Your task to perform on an android device: Go to Android settings Image 0: 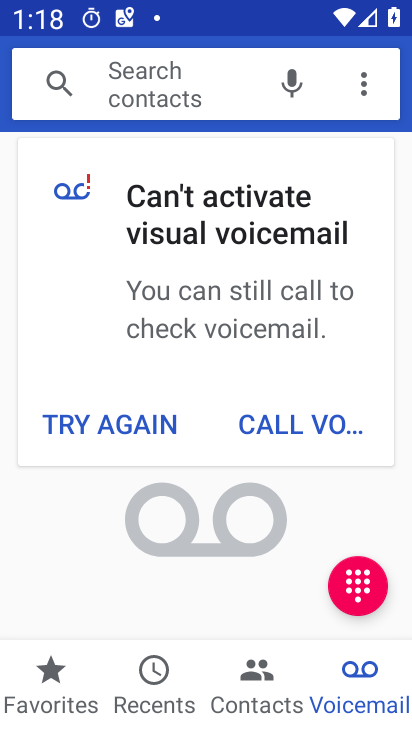
Step 0: press home button
Your task to perform on an android device: Go to Android settings Image 1: 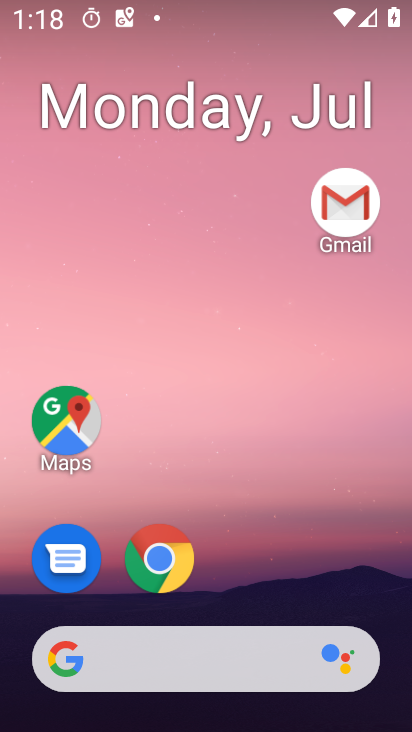
Step 1: drag from (371, 592) to (368, 100)
Your task to perform on an android device: Go to Android settings Image 2: 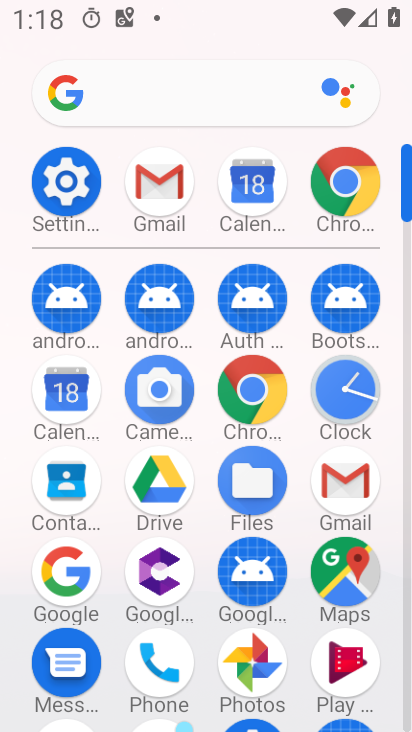
Step 2: click (73, 192)
Your task to perform on an android device: Go to Android settings Image 3: 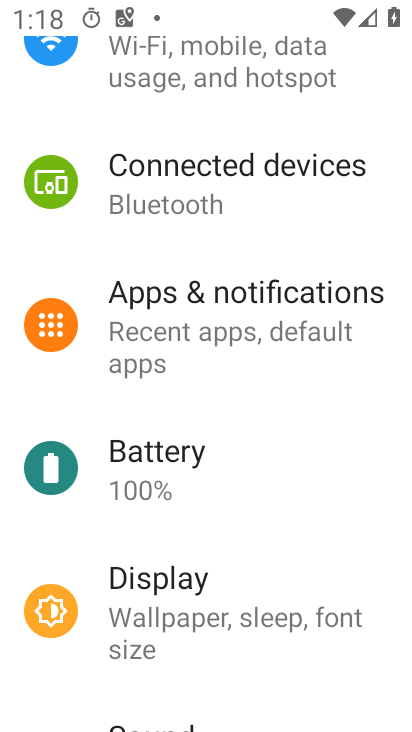
Step 3: drag from (378, 511) to (372, 434)
Your task to perform on an android device: Go to Android settings Image 4: 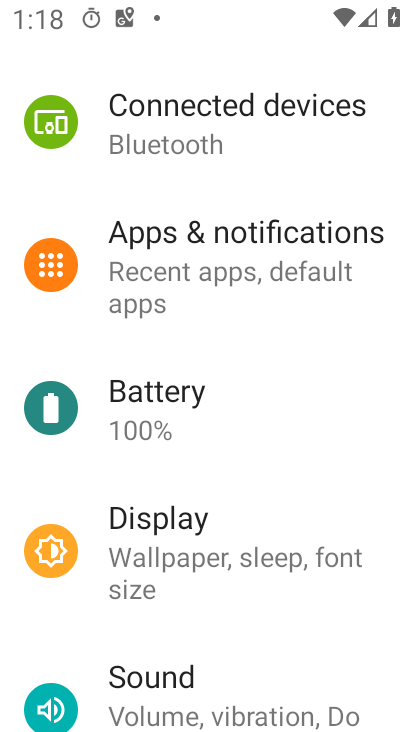
Step 4: drag from (369, 590) to (381, 505)
Your task to perform on an android device: Go to Android settings Image 5: 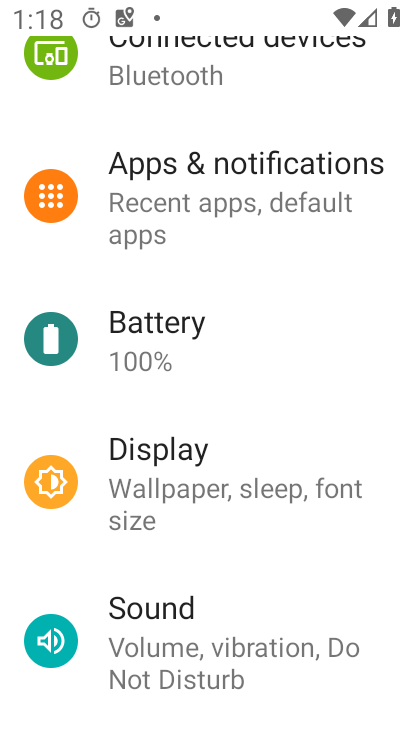
Step 5: drag from (365, 599) to (370, 434)
Your task to perform on an android device: Go to Android settings Image 6: 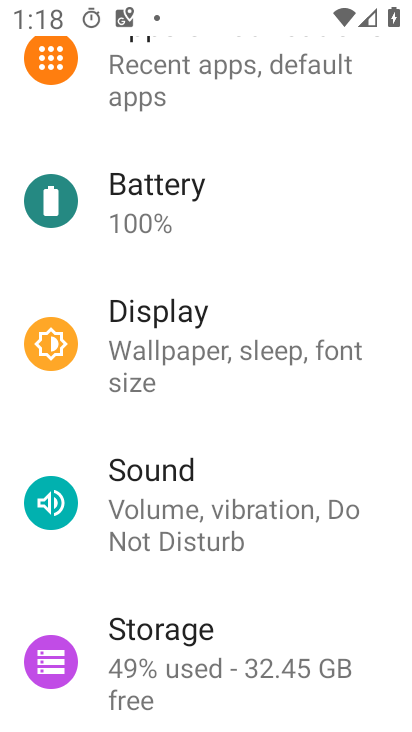
Step 6: drag from (357, 513) to (364, 405)
Your task to perform on an android device: Go to Android settings Image 7: 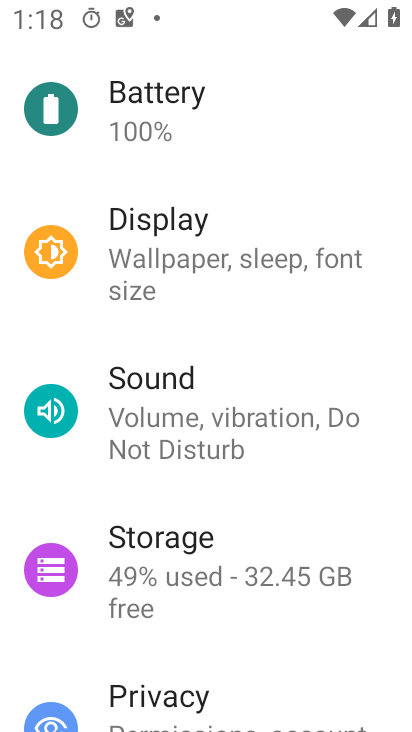
Step 7: drag from (340, 640) to (333, 565)
Your task to perform on an android device: Go to Android settings Image 8: 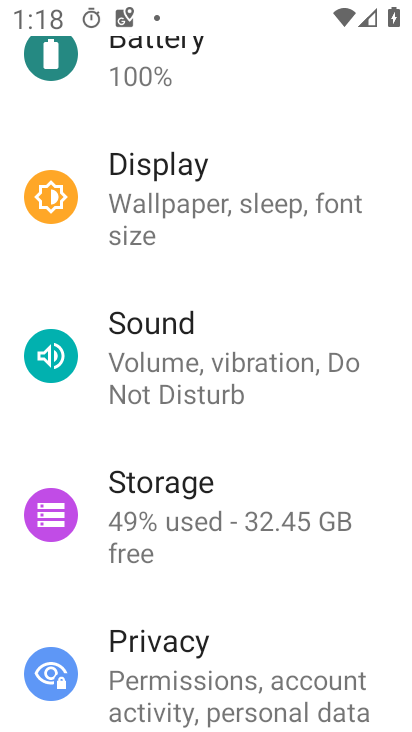
Step 8: drag from (306, 617) to (315, 465)
Your task to perform on an android device: Go to Android settings Image 9: 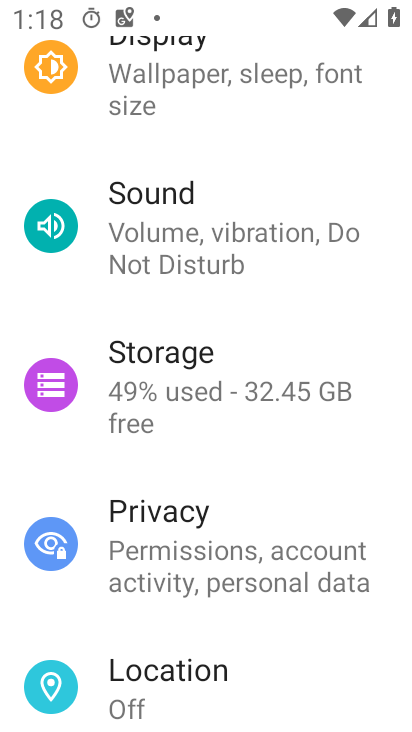
Step 9: drag from (328, 593) to (331, 432)
Your task to perform on an android device: Go to Android settings Image 10: 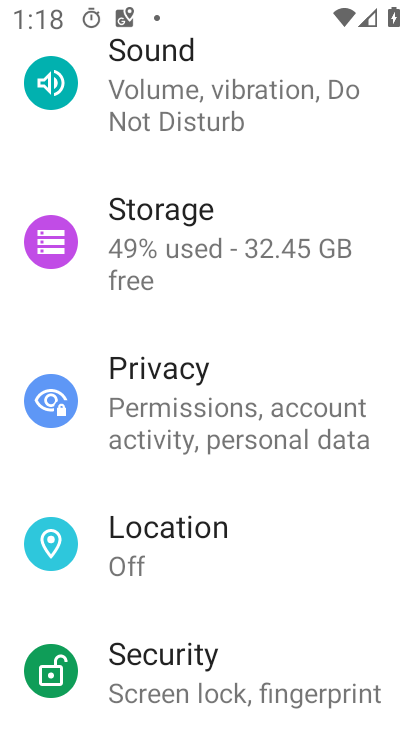
Step 10: drag from (326, 587) to (328, 504)
Your task to perform on an android device: Go to Android settings Image 11: 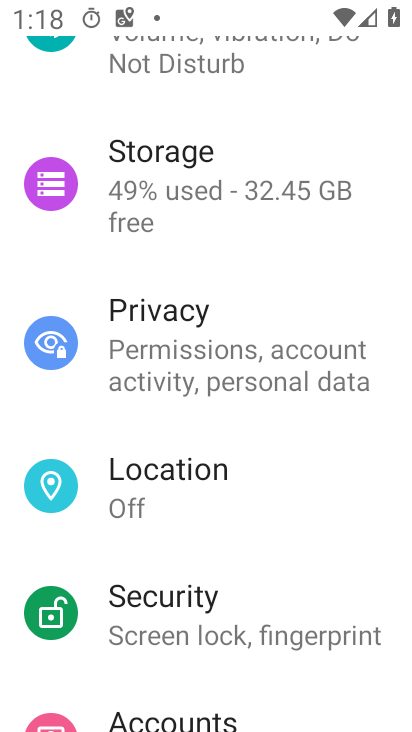
Step 11: drag from (329, 668) to (339, 537)
Your task to perform on an android device: Go to Android settings Image 12: 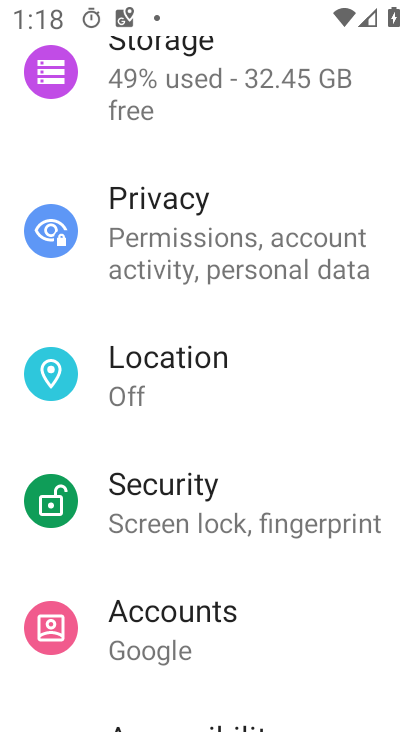
Step 12: drag from (332, 625) to (332, 497)
Your task to perform on an android device: Go to Android settings Image 13: 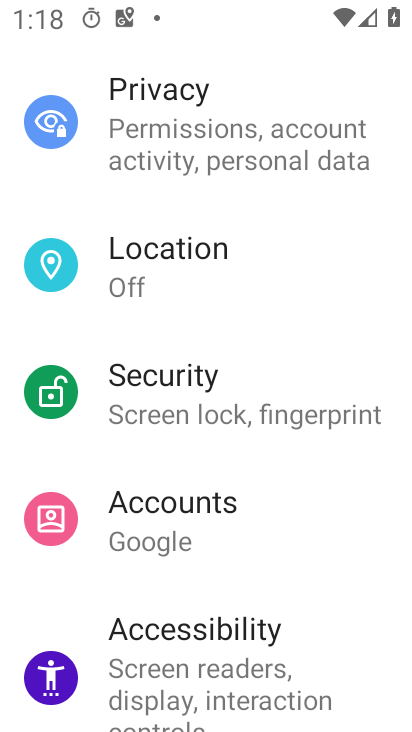
Step 13: drag from (332, 609) to (339, 458)
Your task to perform on an android device: Go to Android settings Image 14: 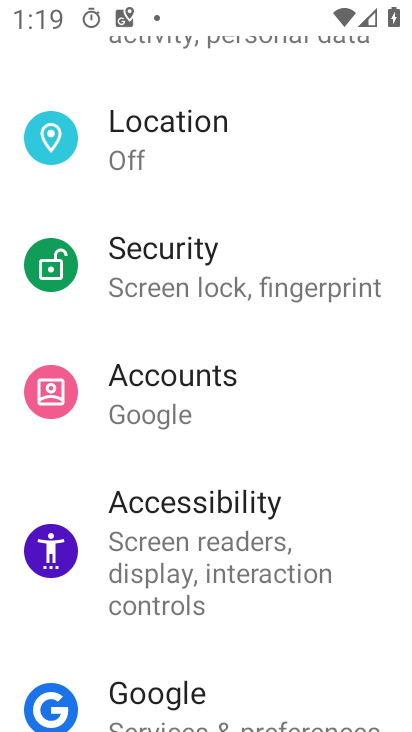
Step 14: drag from (354, 618) to (357, 452)
Your task to perform on an android device: Go to Android settings Image 15: 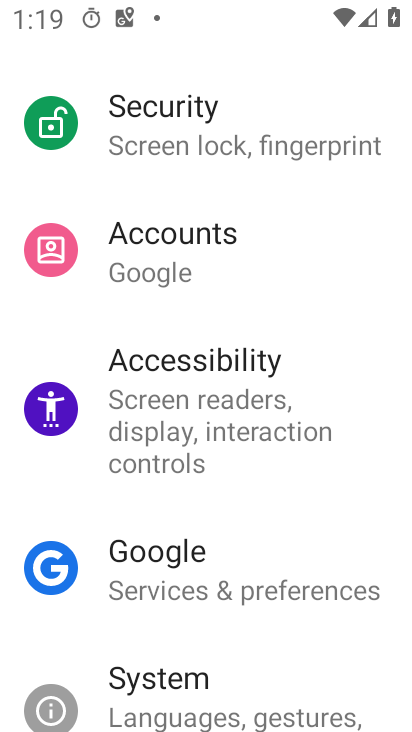
Step 15: drag from (323, 625) to (326, 486)
Your task to perform on an android device: Go to Android settings Image 16: 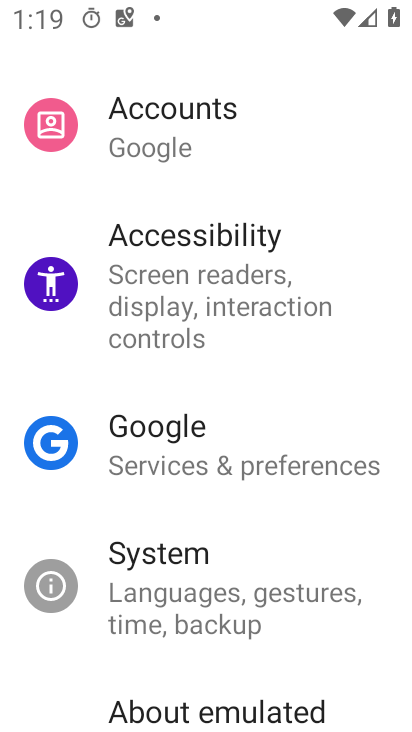
Step 16: click (309, 583)
Your task to perform on an android device: Go to Android settings Image 17: 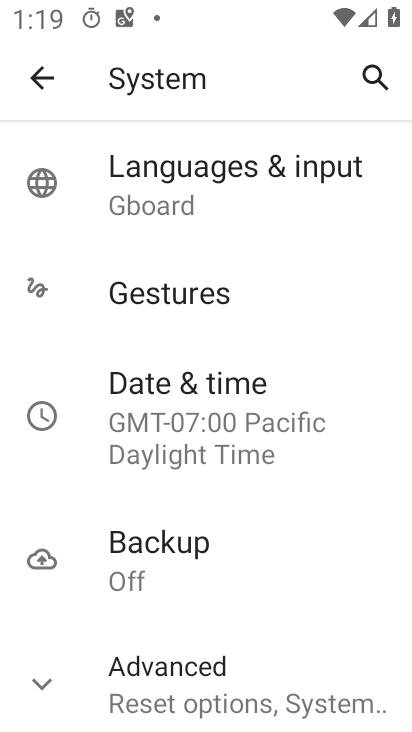
Step 17: click (327, 681)
Your task to perform on an android device: Go to Android settings Image 18: 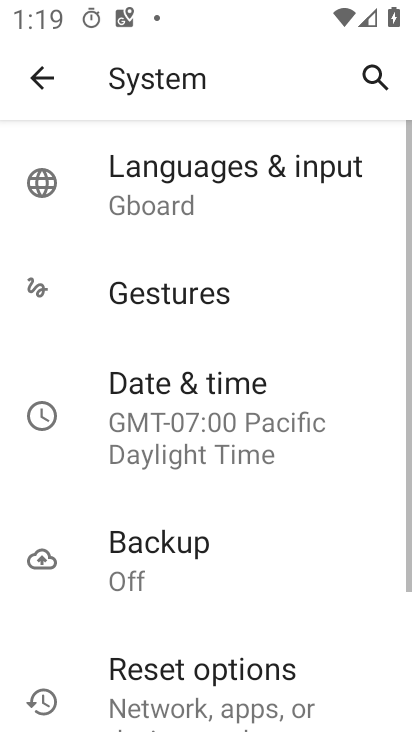
Step 18: task complete